Your task to perform on an android device: empty trash in google photos Image 0: 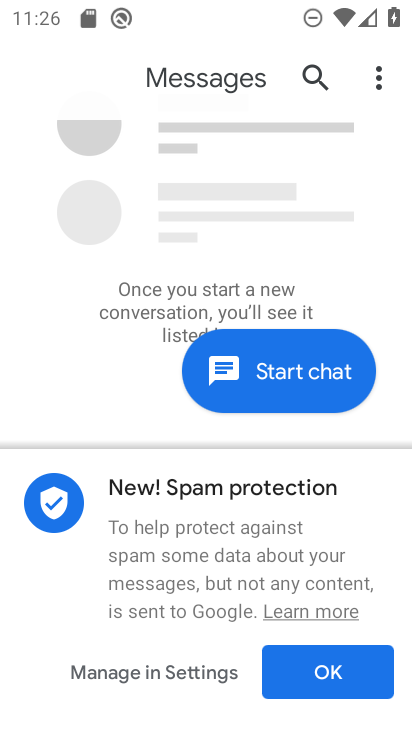
Step 0: press home button
Your task to perform on an android device: empty trash in google photos Image 1: 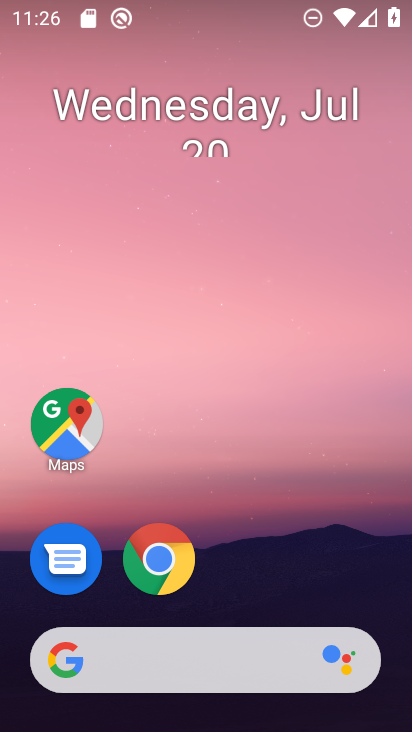
Step 1: drag from (231, 533) to (349, 168)
Your task to perform on an android device: empty trash in google photos Image 2: 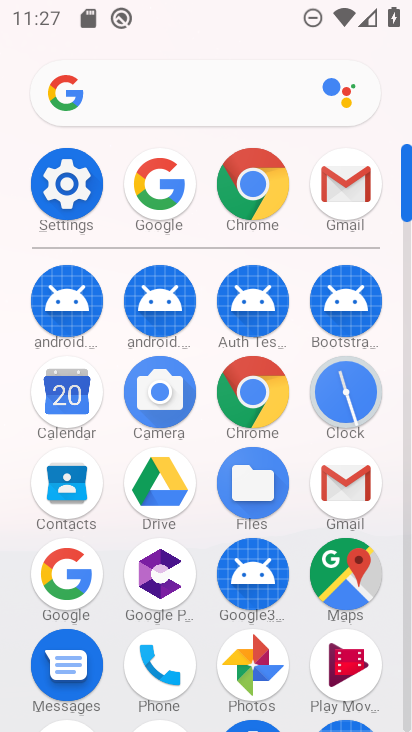
Step 2: click (256, 670)
Your task to perform on an android device: empty trash in google photos Image 3: 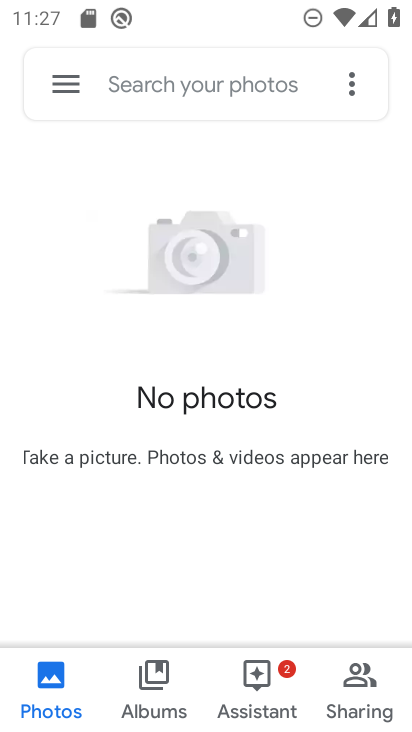
Step 3: click (78, 82)
Your task to perform on an android device: empty trash in google photos Image 4: 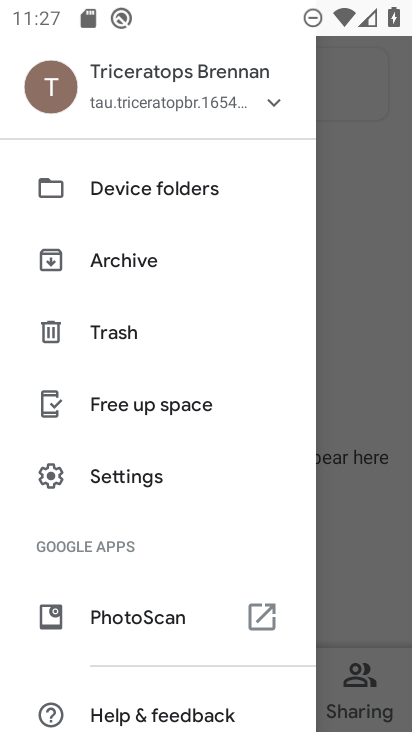
Step 4: click (103, 345)
Your task to perform on an android device: empty trash in google photos Image 5: 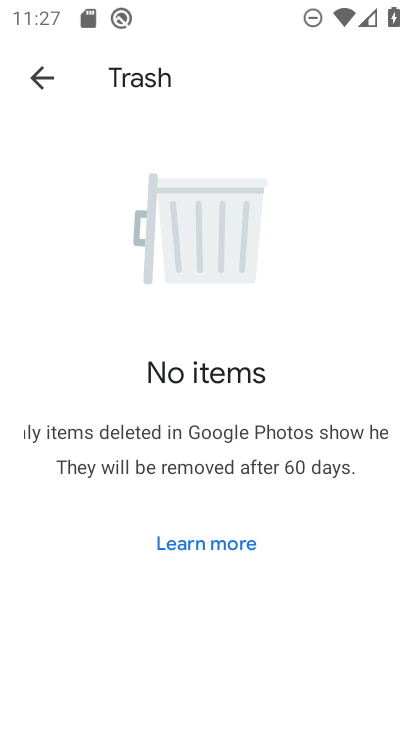
Step 5: task complete